Your task to perform on an android device: delete browsing data in the chrome app Image 0: 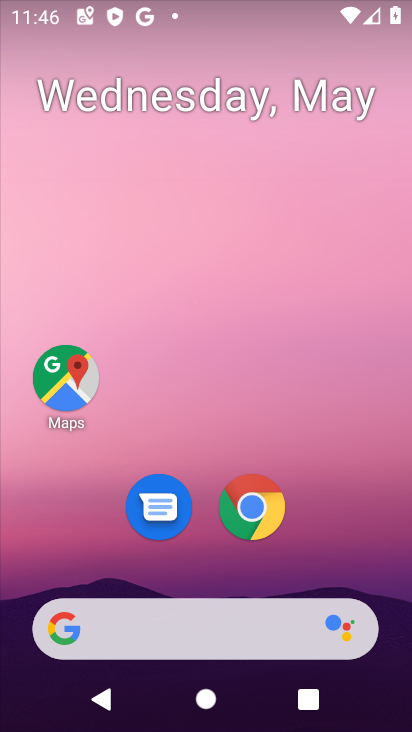
Step 0: press home button
Your task to perform on an android device: delete browsing data in the chrome app Image 1: 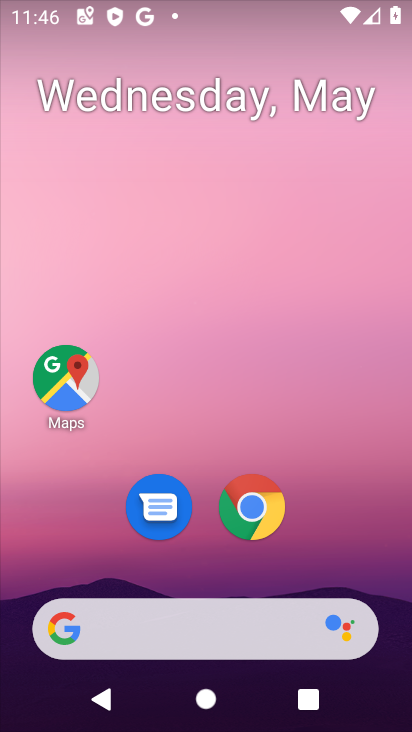
Step 1: drag from (370, 546) to (240, 19)
Your task to perform on an android device: delete browsing data in the chrome app Image 2: 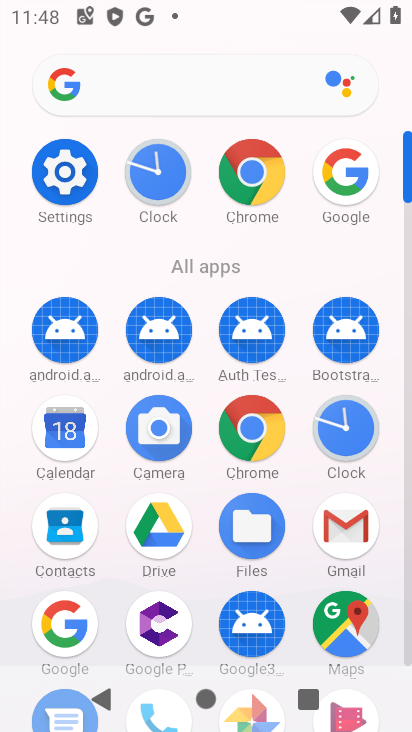
Step 2: click (215, 189)
Your task to perform on an android device: delete browsing data in the chrome app Image 3: 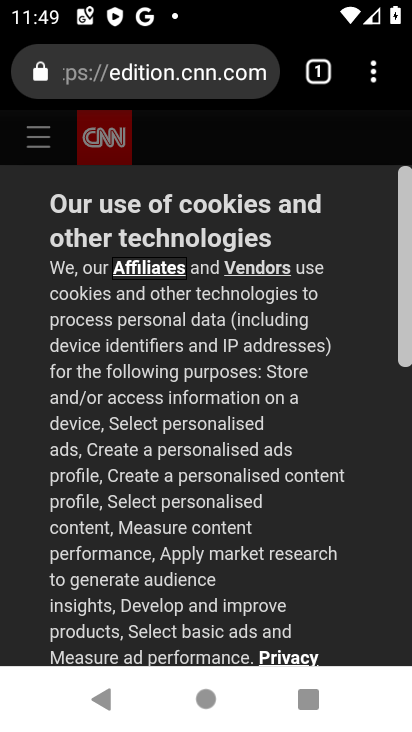
Step 3: drag from (381, 63) to (161, 495)
Your task to perform on an android device: delete browsing data in the chrome app Image 4: 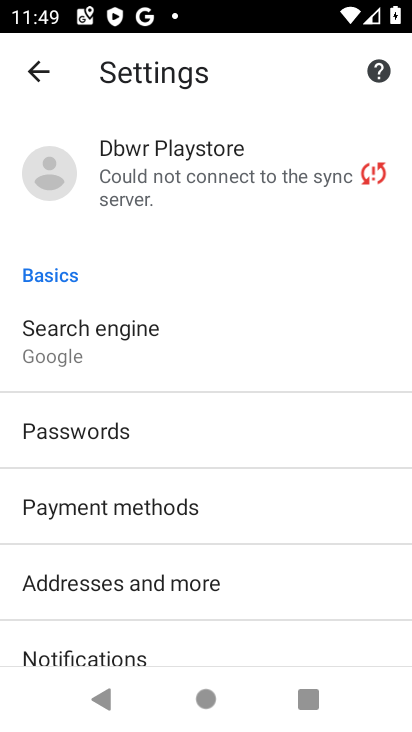
Step 4: drag from (277, 582) to (289, 470)
Your task to perform on an android device: delete browsing data in the chrome app Image 5: 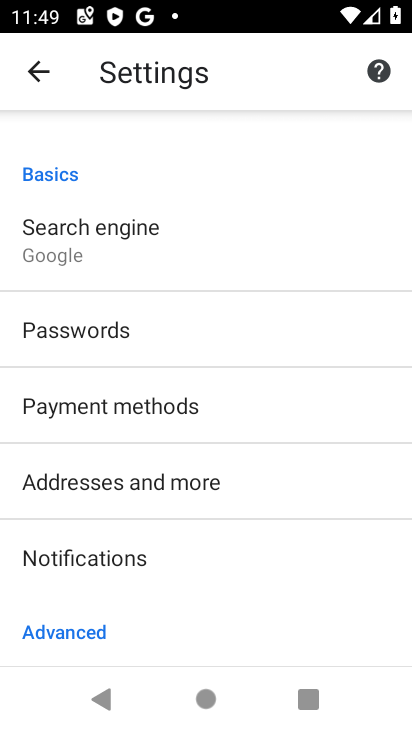
Step 5: click (83, 435)
Your task to perform on an android device: delete browsing data in the chrome app Image 6: 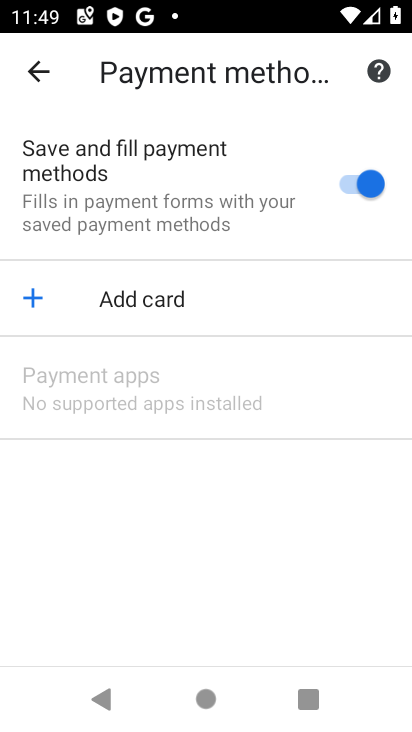
Step 6: click (34, 85)
Your task to perform on an android device: delete browsing data in the chrome app Image 7: 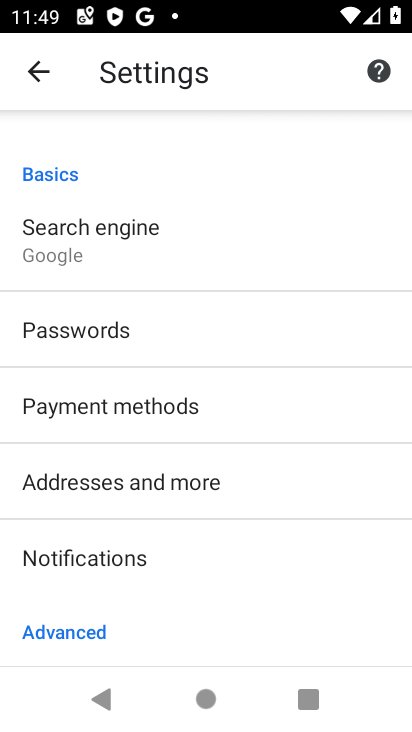
Step 7: drag from (99, 458) to (113, 297)
Your task to perform on an android device: delete browsing data in the chrome app Image 8: 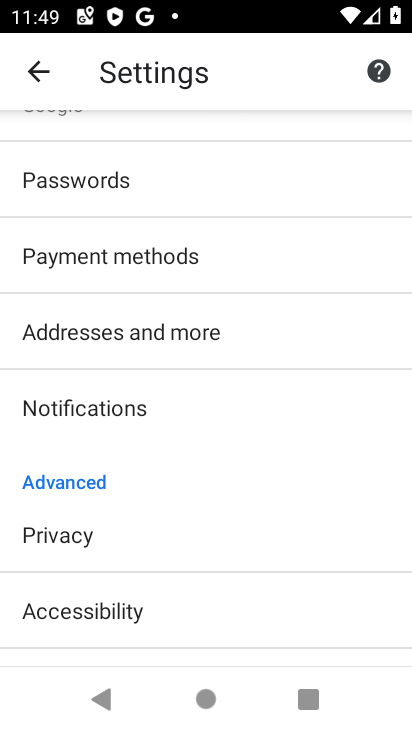
Step 8: drag from (110, 650) to (82, 393)
Your task to perform on an android device: delete browsing data in the chrome app Image 9: 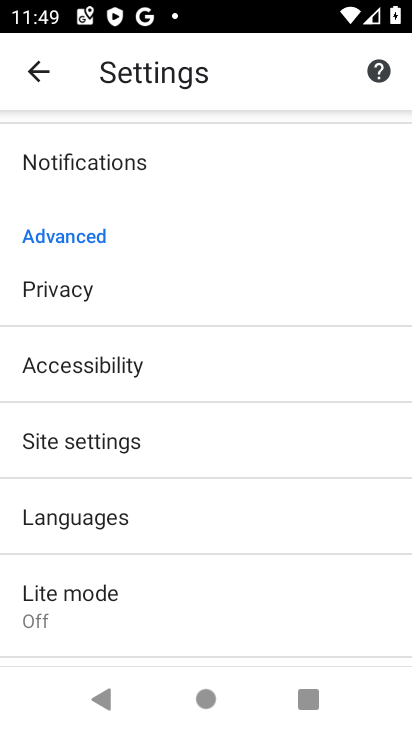
Step 9: click (39, 303)
Your task to perform on an android device: delete browsing data in the chrome app Image 10: 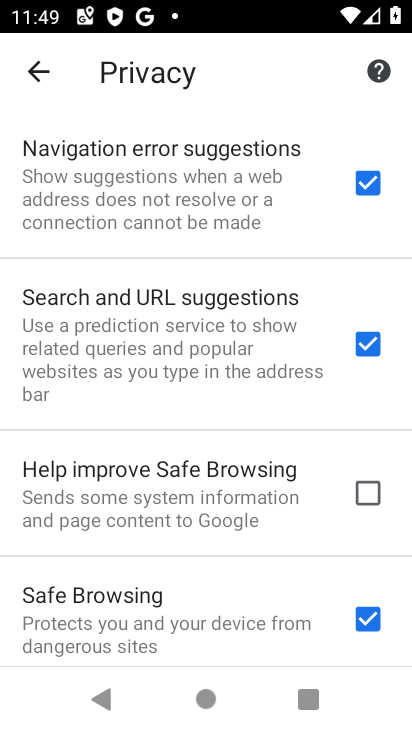
Step 10: drag from (158, 586) to (207, 81)
Your task to perform on an android device: delete browsing data in the chrome app Image 11: 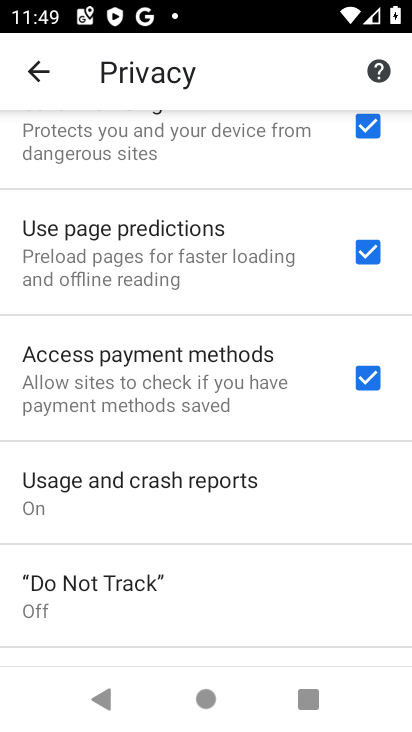
Step 11: drag from (186, 547) to (229, 153)
Your task to perform on an android device: delete browsing data in the chrome app Image 12: 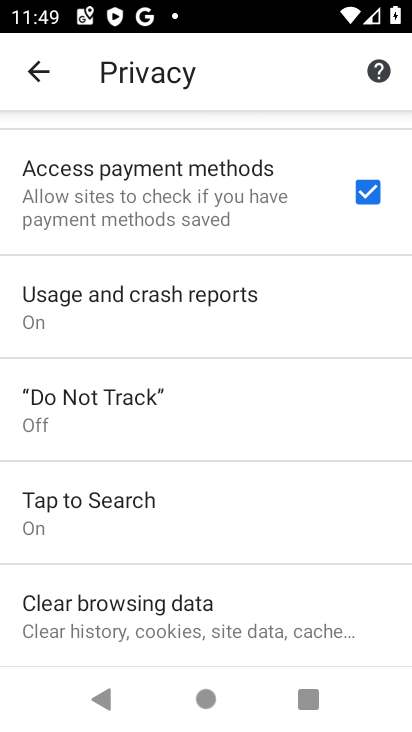
Step 12: click (166, 624)
Your task to perform on an android device: delete browsing data in the chrome app Image 13: 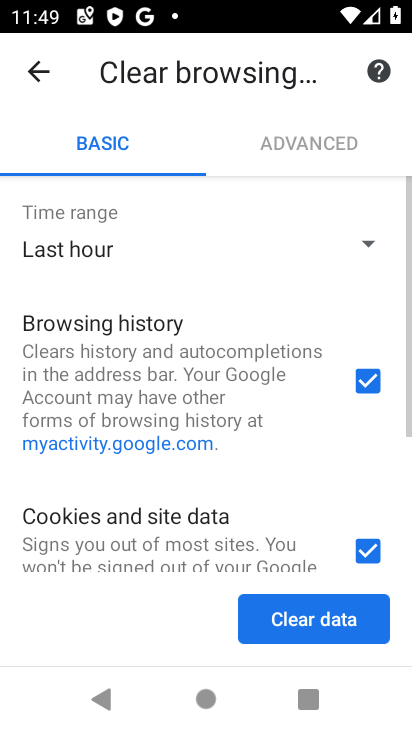
Step 13: click (350, 605)
Your task to perform on an android device: delete browsing data in the chrome app Image 14: 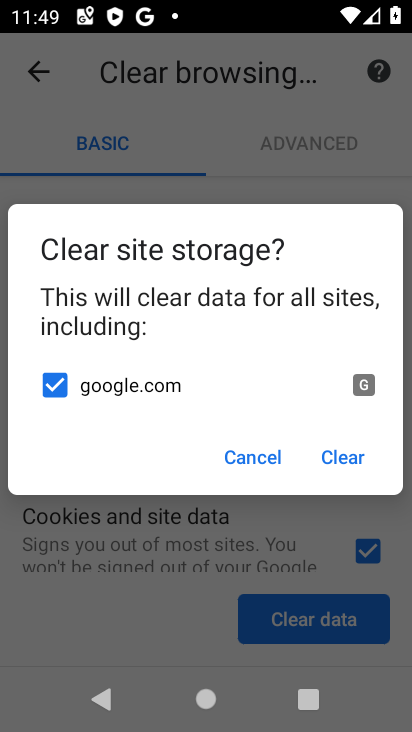
Step 14: click (355, 456)
Your task to perform on an android device: delete browsing data in the chrome app Image 15: 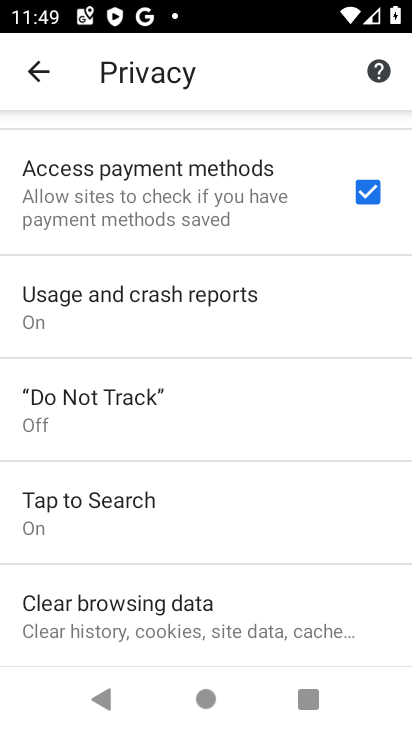
Step 15: task complete